Your task to perform on an android device: read, delete, or share a saved page in the chrome app Image 0: 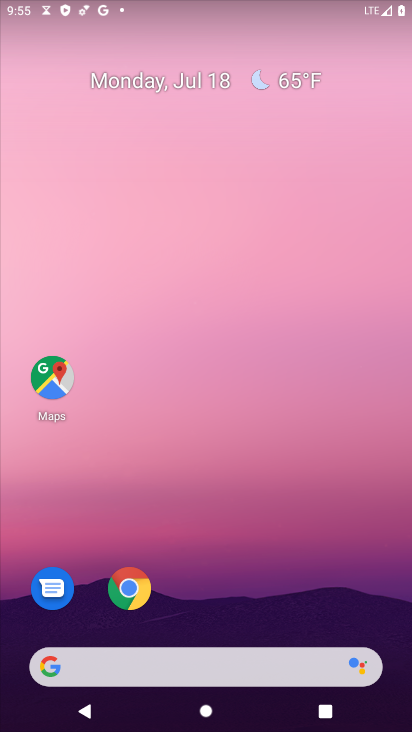
Step 0: click (129, 587)
Your task to perform on an android device: read, delete, or share a saved page in the chrome app Image 1: 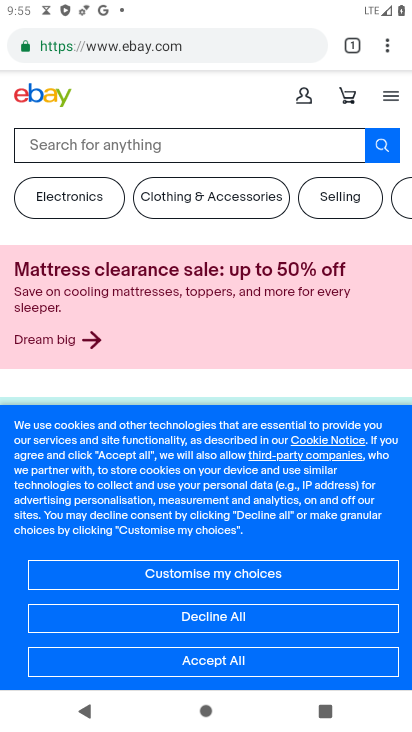
Step 1: click (390, 41)
Your task to perform on an android device: read, delete, or share a saved page in the chrome app Image 2: 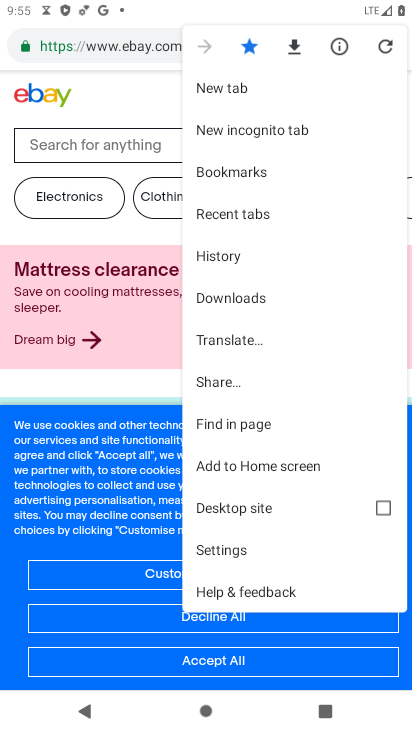
Step 2: click (224, 298)
Your task to perform on an android device: read, delete, or share a saved page in the chrome app Image 3: 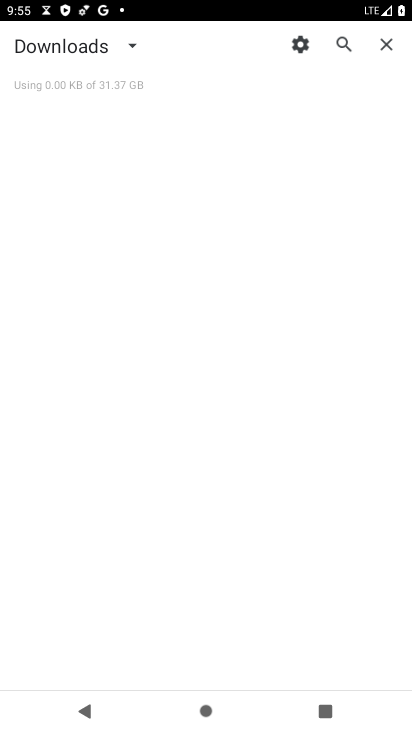
Step 3: click (132, 41)
Your task to perform on an android device: read, delete, or share a saved page in the chrome app Image 4: 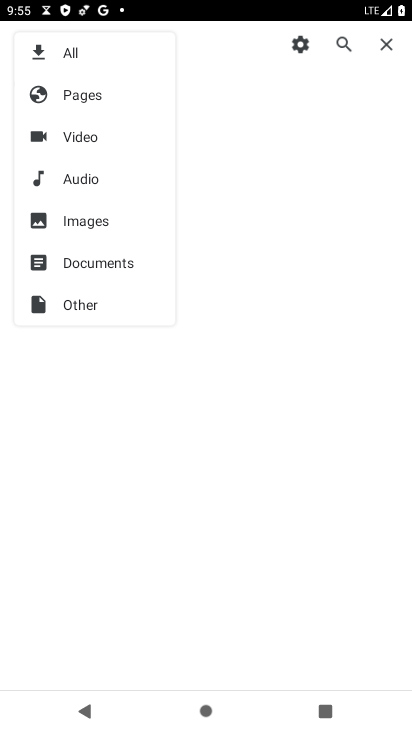
Step 4: click (97, 96)
Your task to perform on an android device: read, delete, or share a saved page in the chrome app Image 5: 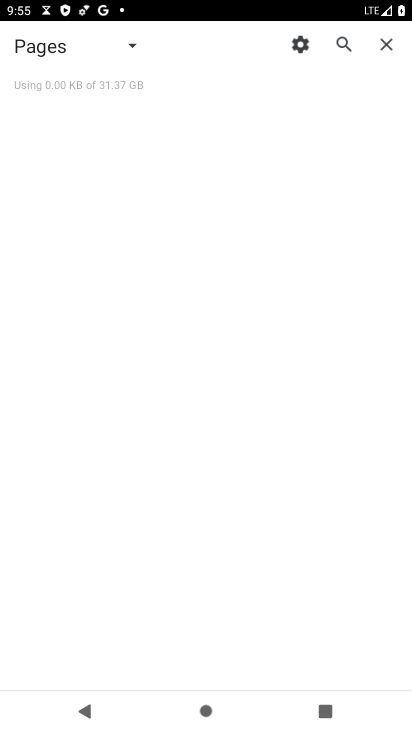
Step 5: click (134, 46)
Your task to perform on an android device: read, delete, or share a saved page in the chrome app Image 6: 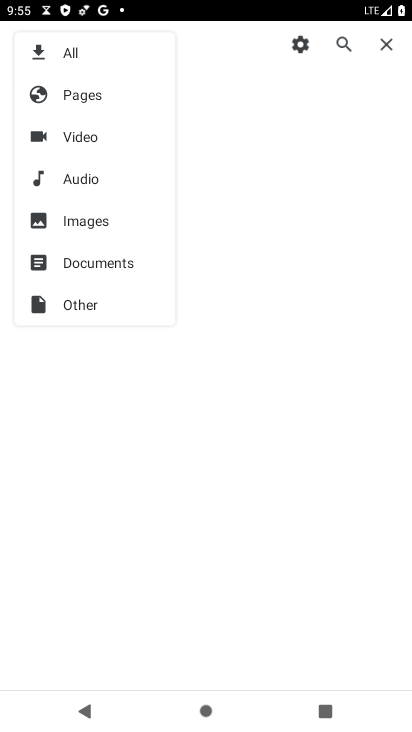
Step 6: click (87, 306)
Your task to perform on an android device: read, delete, or share a saved page in the chrome app Image 7: 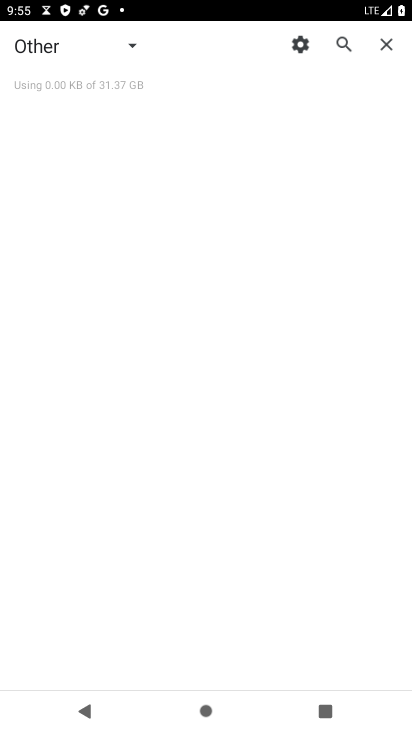
Step 7: task complete